Your task to perform on an android device: Open Google Maps Image 0: 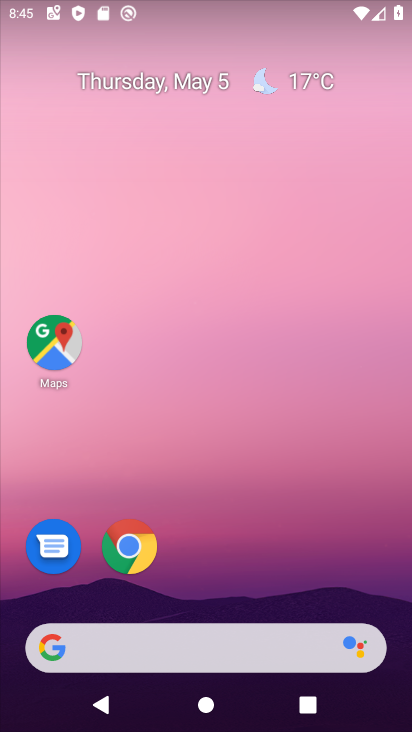
Step 0: click (325, 164)
Your task to perform on an android device: Open Google Maps Image 1: 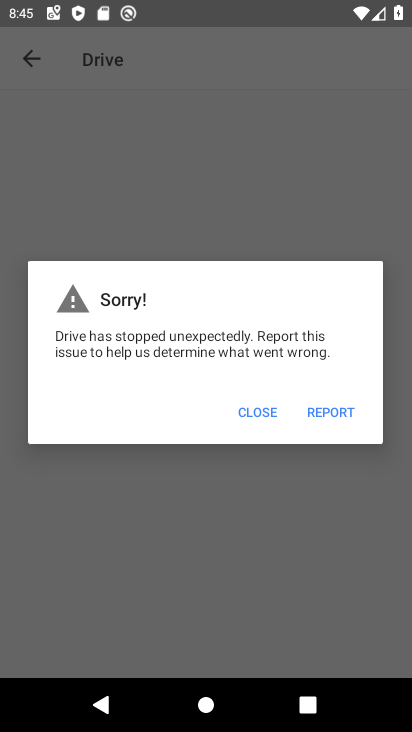
Step 1: press home button
Your task to perform on an android device: Open Google Maps Image 2: 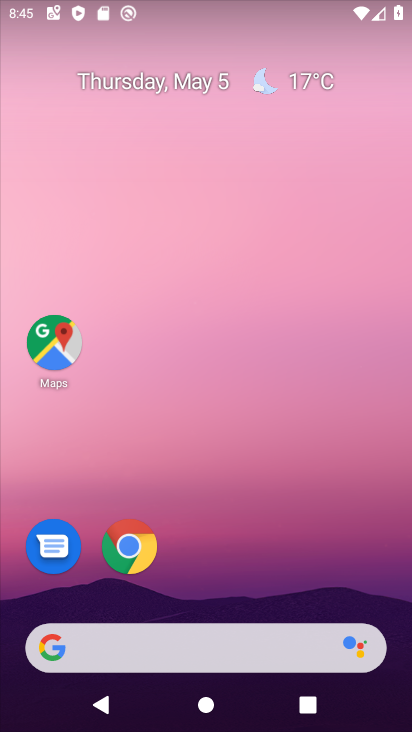
Step 2: drag from (152, 483) to (271, 77)
Your task to perform on an android device: Open Google Maps Image 3: 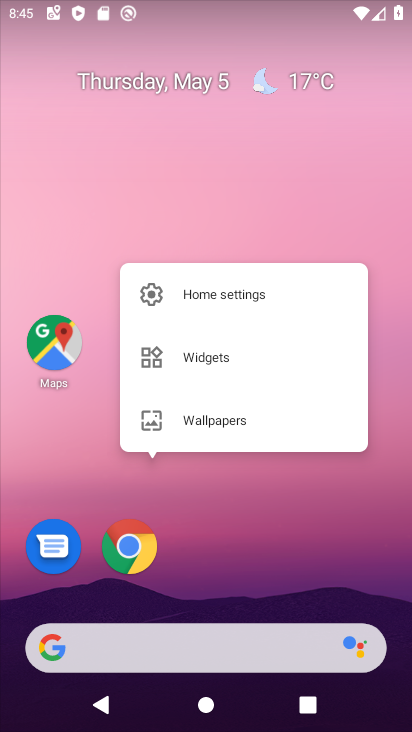
Step 3: drag from (219, 636) to (365, 71)
Your task to perform on an android device: Open Google Maps Image 4: 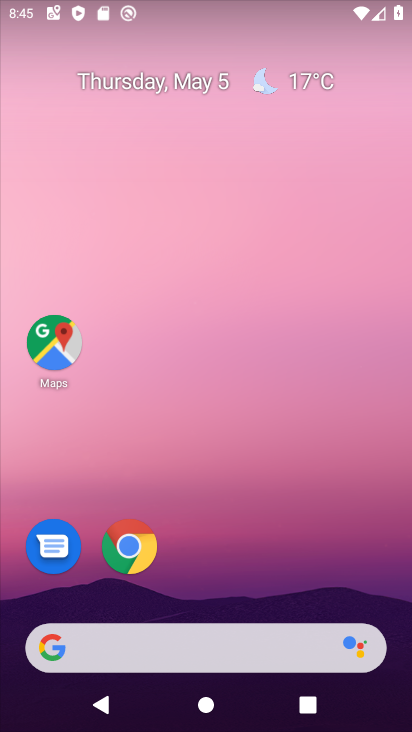
Step 4: click (56, 348)
Your task to perform on an android device: Open Google Maps Image 5: 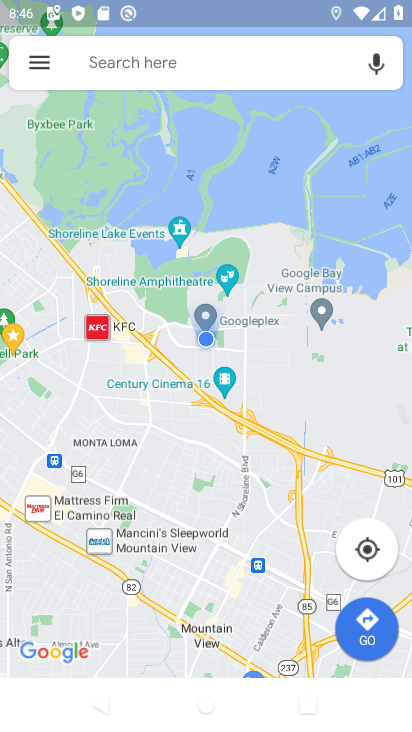
Step 5: task complete